Your task to perform on an android device: change alarm snooze length Image 0: 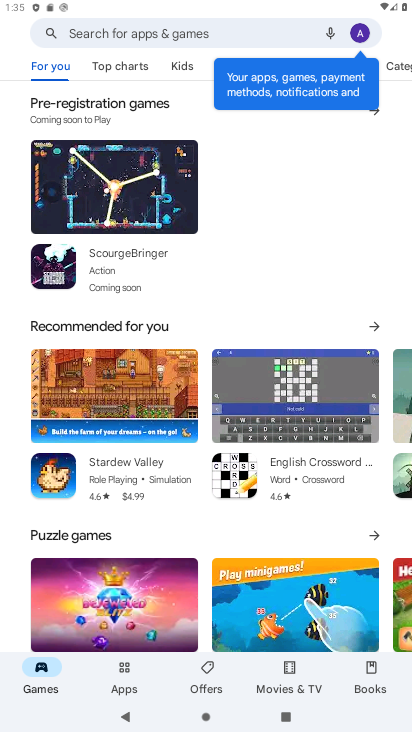
Step 0: drag from (202, 597) to (261, 282)
Your task to perform on an android device: change alarm snooze length Image 1: 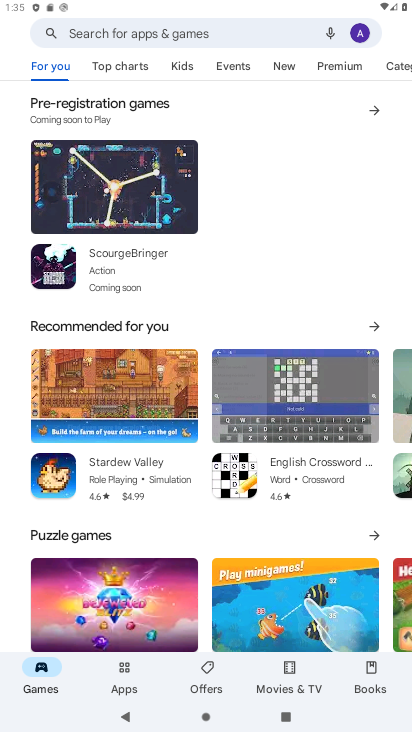
Step 1: press home button
Your task to perform on an android device: change alarm snooze length Image 2: 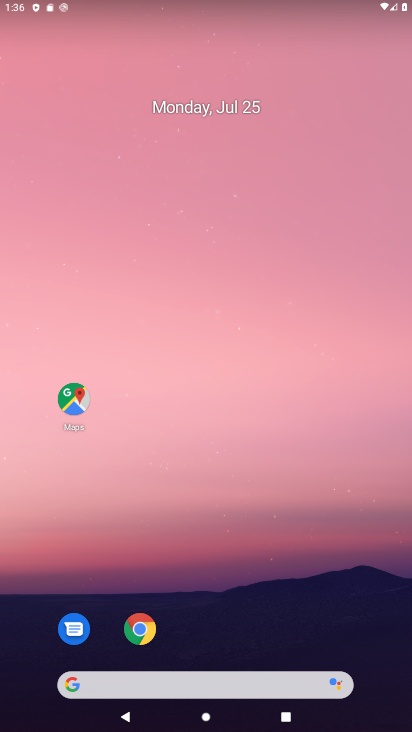
Step 2: drag from (201, 634) to (283, 55)
Your task to perform on an android device: change alarm snooze length Image 3: 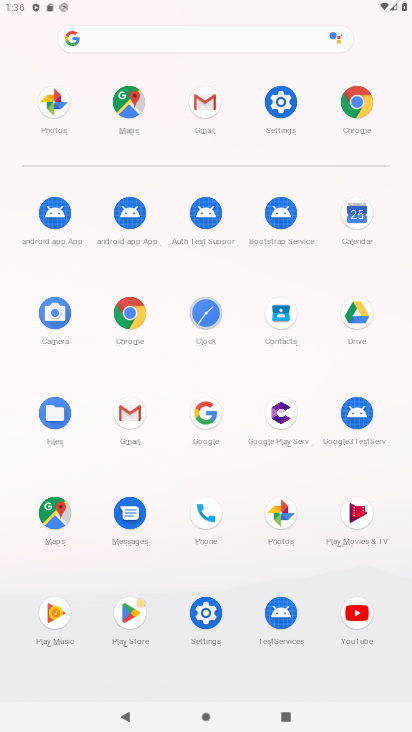
Step 3: click (198, 319)
Your task to perform on an android device: change alarm snooze length Image 4: 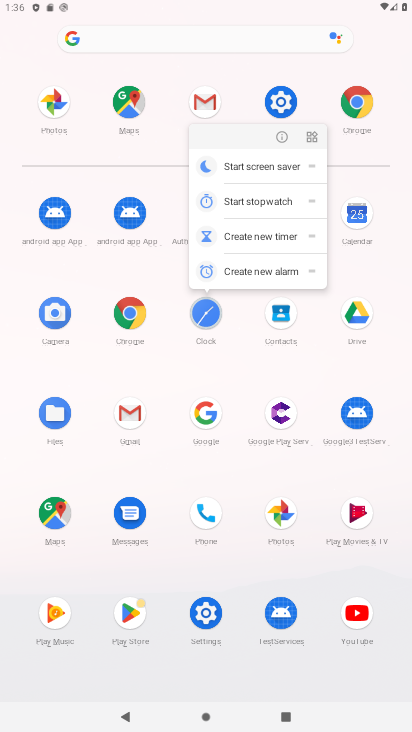
Step 4: click (283, 128)
Your task to perform on an android device: change alarm snooze length Image 5: 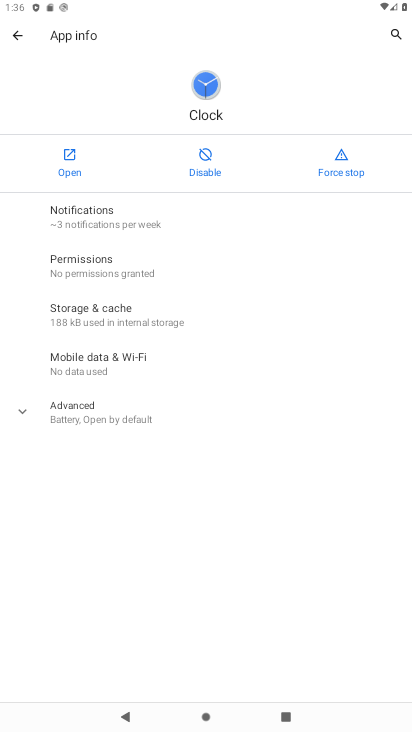
Step 5: click (62, 171)
Your task to perform on an android device: change alarm snooze length Image 6: 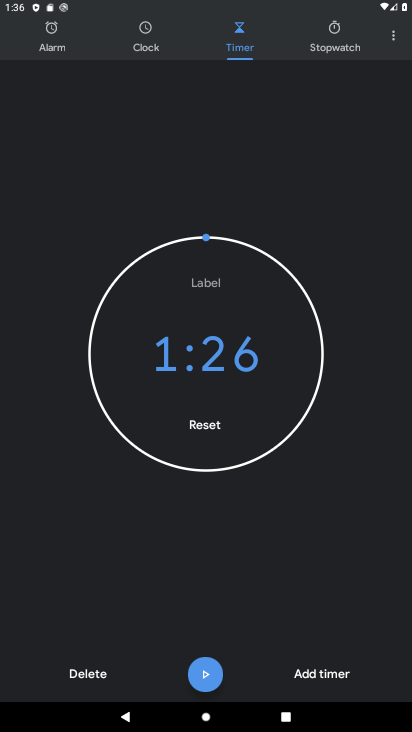
Step 6: drag from (398, 41) to (323, 66)
Your task to perform on an android device: change alarm snooze length Image 7: 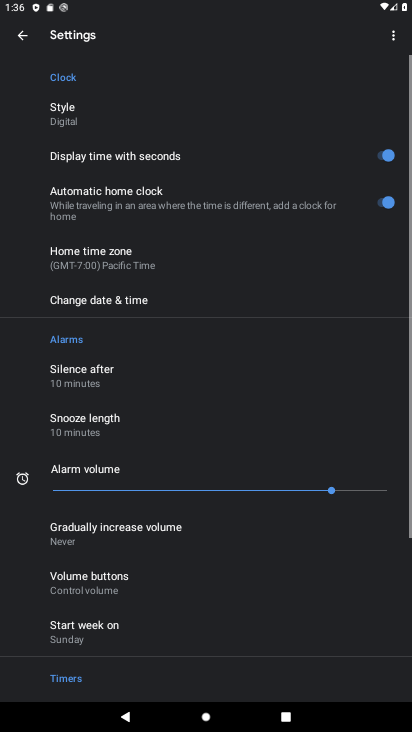
Step 7: drag from (175, 479) to (259, 178)
Your task to perform on an android device: change alarm snooze length Image 8: 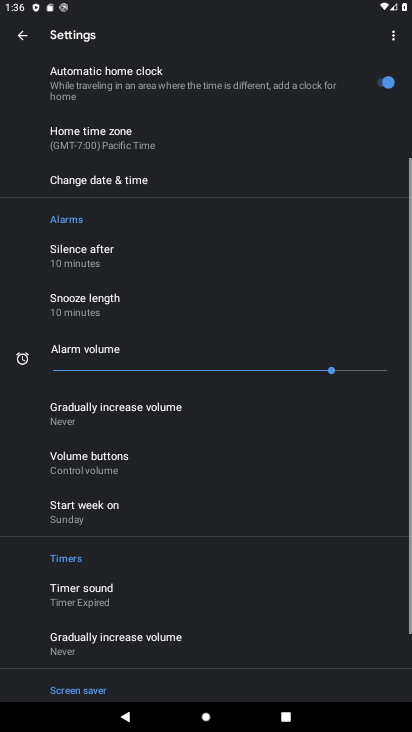
Step 8: drag from (267, 123) to (235, 690)
Your task to perform on an android device: change alarm snooze length Image 9: 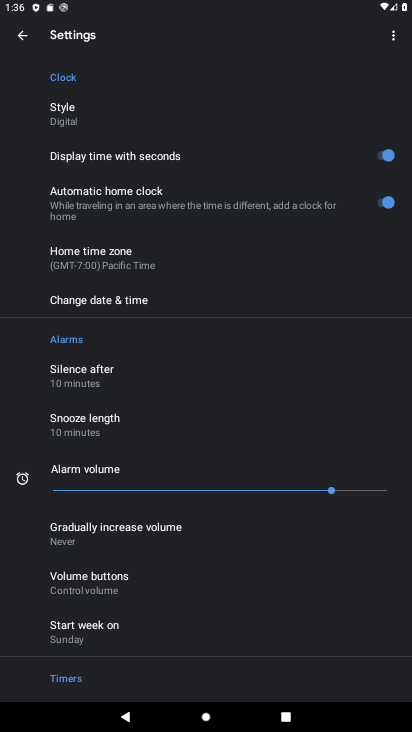
Step 9: click (115, 431)
Your task to perform on an android device: change alarm snooze length Image 10: 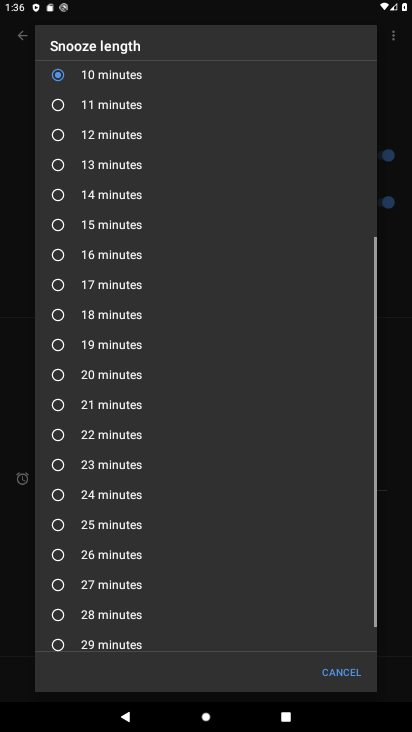
Step 10: drag from (185, 482) to (220, 207)
Your task to perform on an android device: change alarm snooze length Image 11: 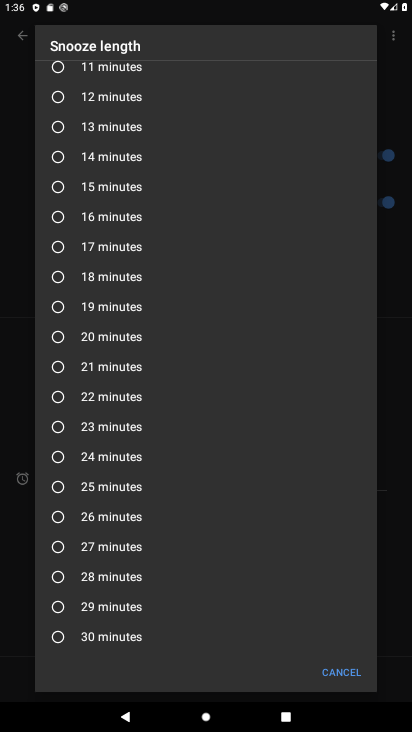
Step 11: drag from (107, 216) to (131, 730)
Your task to perform on an android device: change alarm snooze length Image 12: 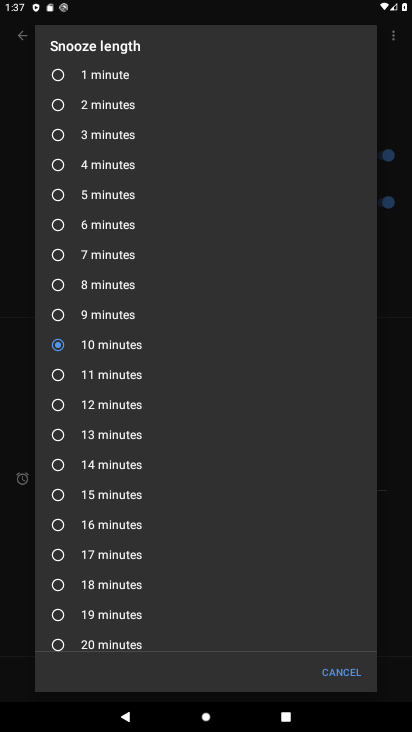
Step 12: click (64, 222)
Your task to perform on an android device: change alarm snooze length Image 13: 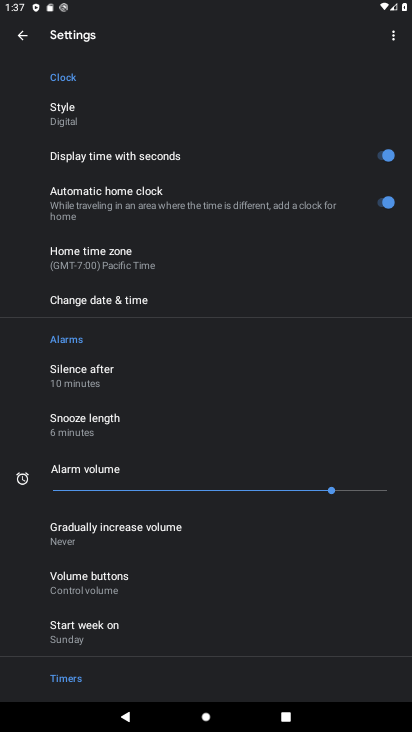
Step 13: task complete